Your task to perform on an android device: Set the phone to "Do not disturb". Image 0: 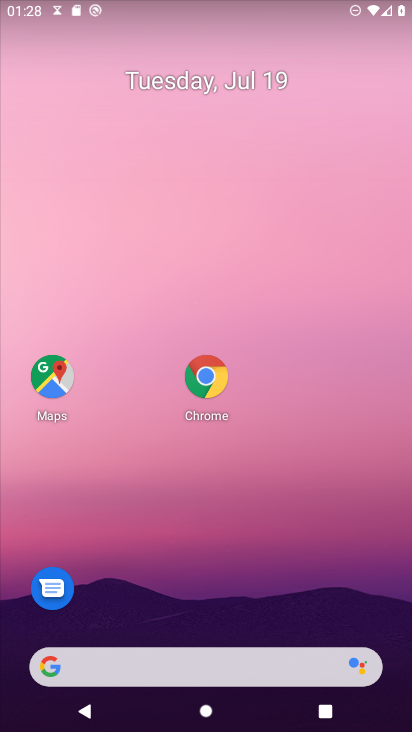
Step 0: press home button
Your task to perform on an android device: Set the phone to "Do not disturb". Image 1: 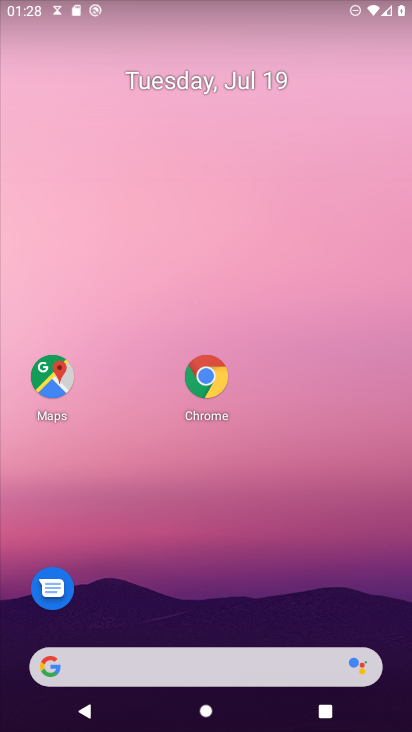
Step 1: task complete